Your task to perform on an android device: Show me popular games on the Play Store Image 0: 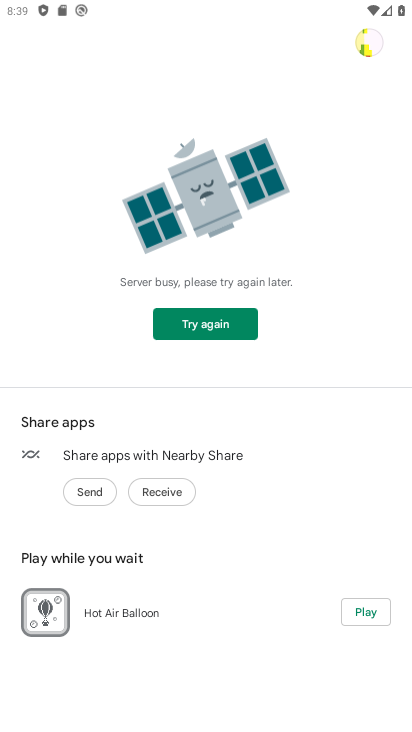
Step 0: press home button
Your task to perform on an android device: Show me popular games on the Play Store Image 1: 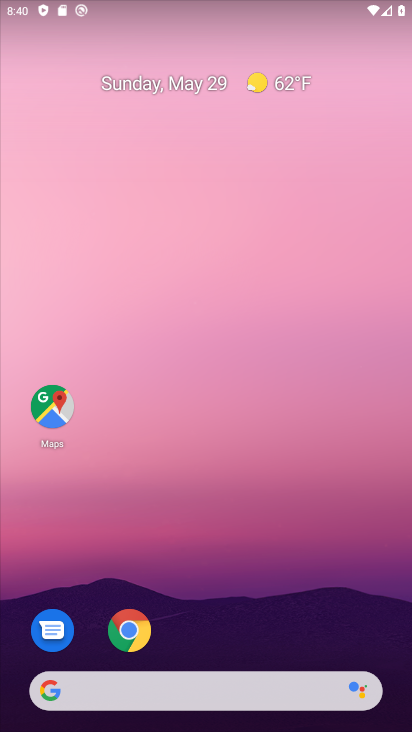
Step 1: drag from (389, 703) to (332, 183)
Your task to perform on an android device: Show me popular games on the Play Store Image 2: 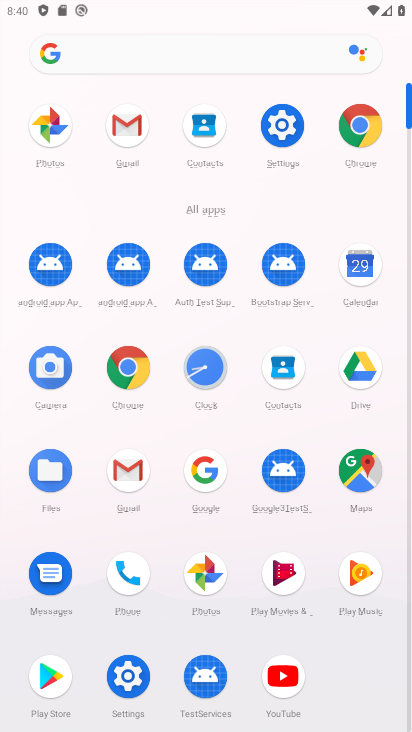
Step 2: drag from (330, 646) to (355, 308)
Your task to perform on an android device: Show me popular games on the Play Store Image 3: 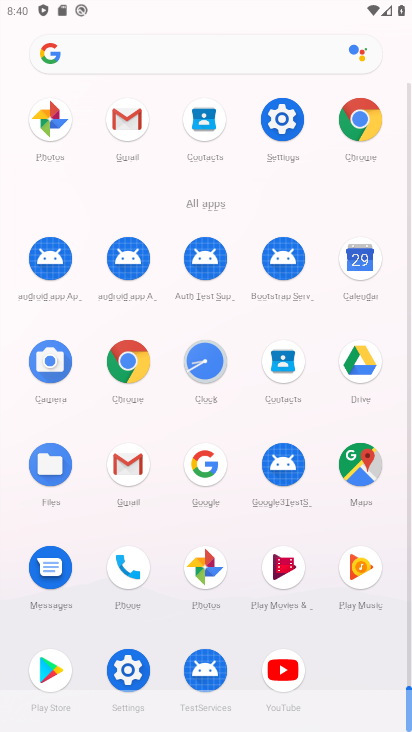
Step 3: click (61, 665)
Your task to perform on an android device: Show me popular games on the Play Store Image 4: 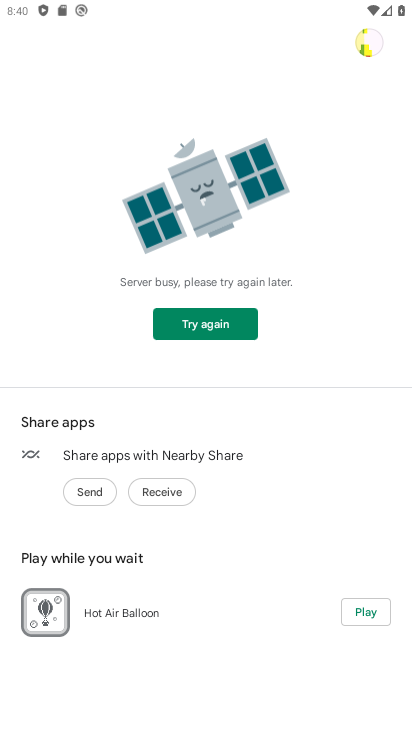
Step 4: click (218, 326)
Your task to perform on an android device: Show me popular games on the Play Store Image 5: 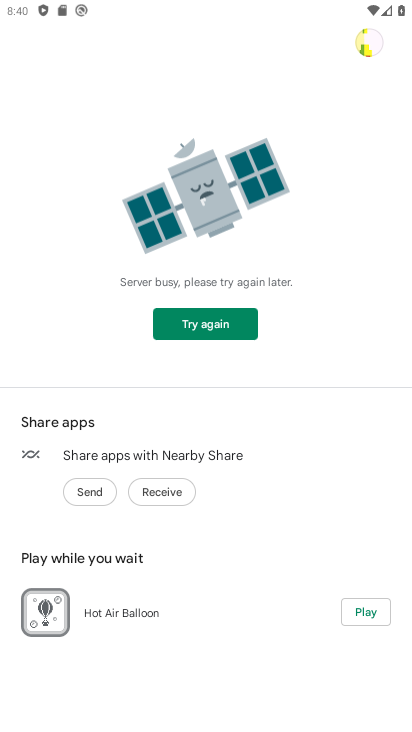
Step 5: task complete